Your task to perform on an android device: Open calendar and show me the third week of next month Image 0: 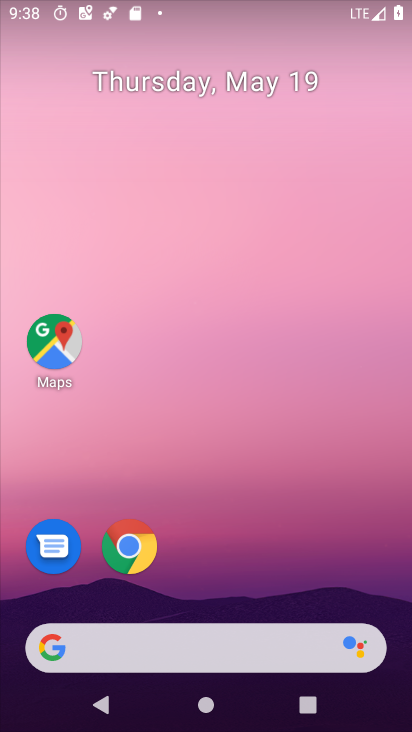
Step 0: drag from (232, 615) to (218, 34)
Your task to perform on an android device: Open calendar and show me the third week of next month Image 1: 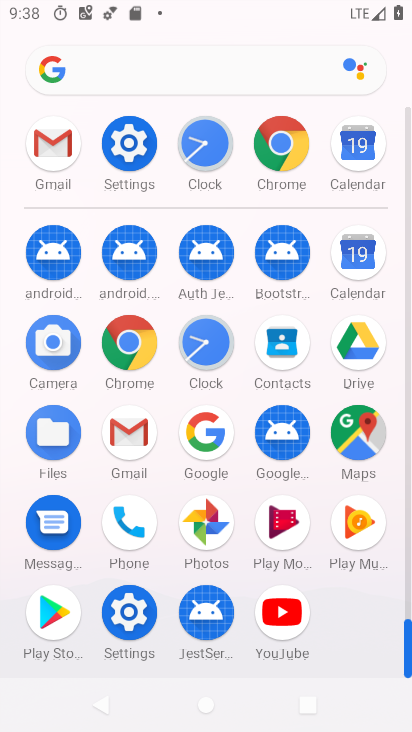
Step 1: drag from (203, 560) to (197, 12)
Your task to perform on an android device: Open calendar and show me the third week of next month Image 2: 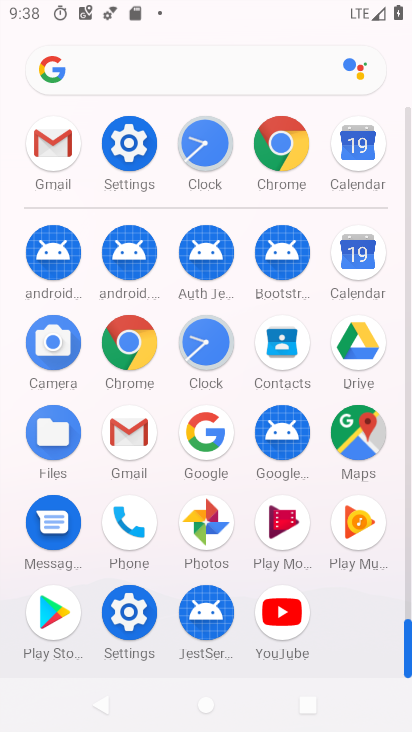
Step 2: click (336, 247)
Your task to perform on an android device: Open calendar and show me the third week of next month Image 3: 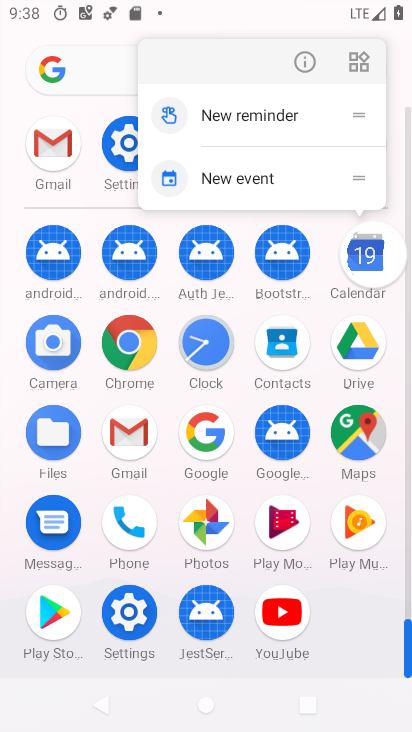
Step 3: click (351, 249)
Your task to perform on an android device: Open calendar and show me the third week of next month Image 4: 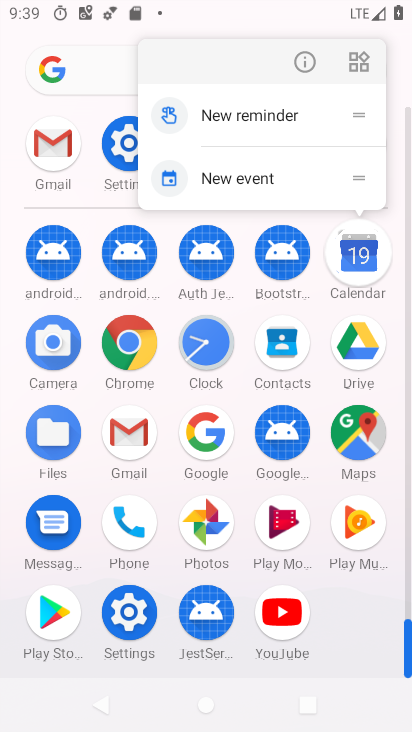
Step 4: click (353, 250)
Your task to perform on an android device: Open calendar and show me the third week of next month Image 5: 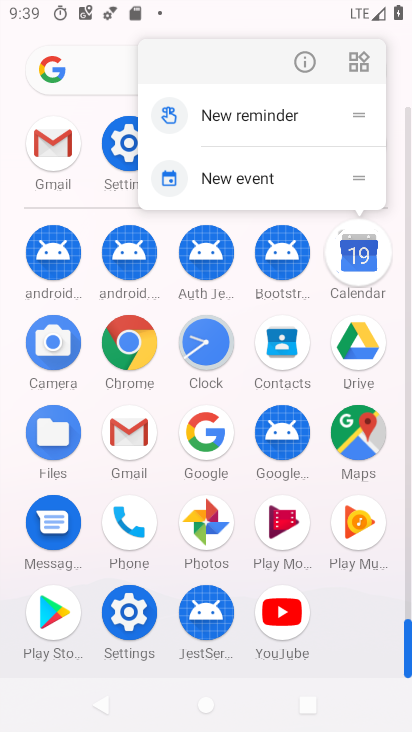
Step 5: click (354, 251)
Your task to perform on an android device: Open calendar and show me the third week of next month Image 6: 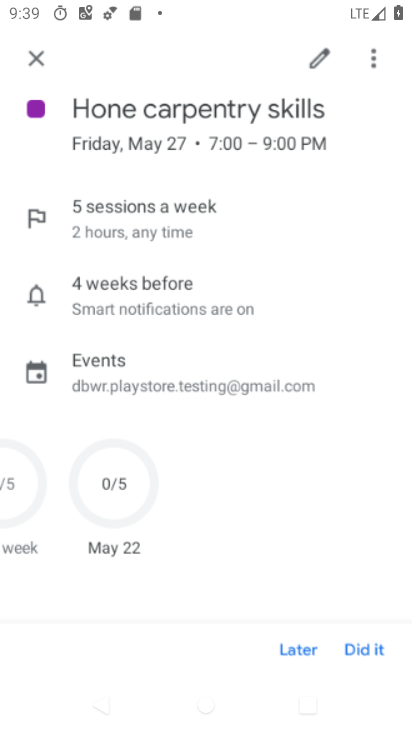
Step 6: click (364, 253)
Your task to perform on an android device: Open calendar and show me the third week of next month Image 7: 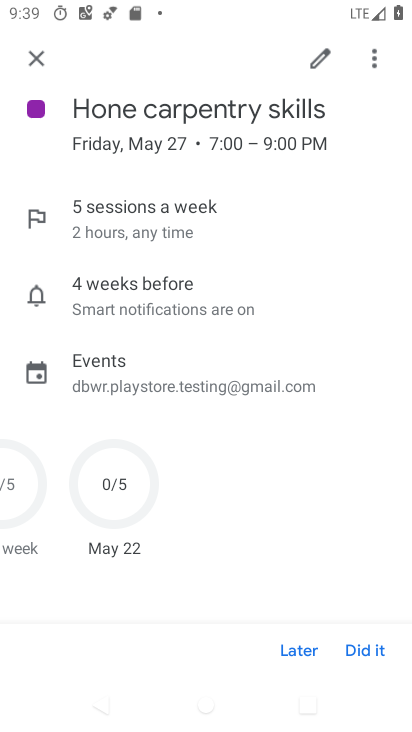
Step 7: click (33, 56)
Your task to perform on an android device: Open calendar and show me the third week of next month Image 8: 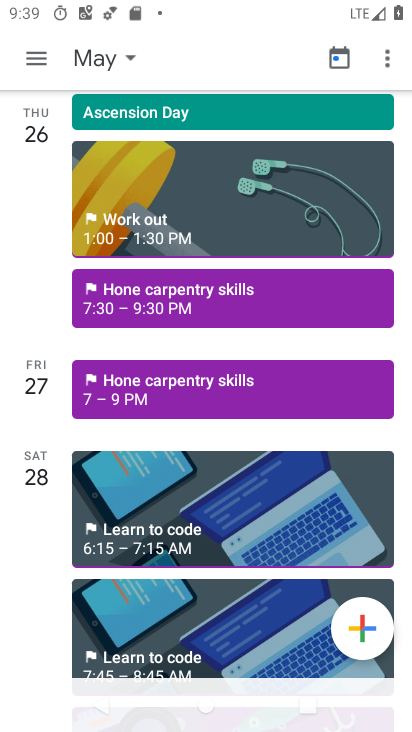
Step 8: click (48, 62)
Your task to perform on an android device: Open calendar and show me the third week of next month Image 9: 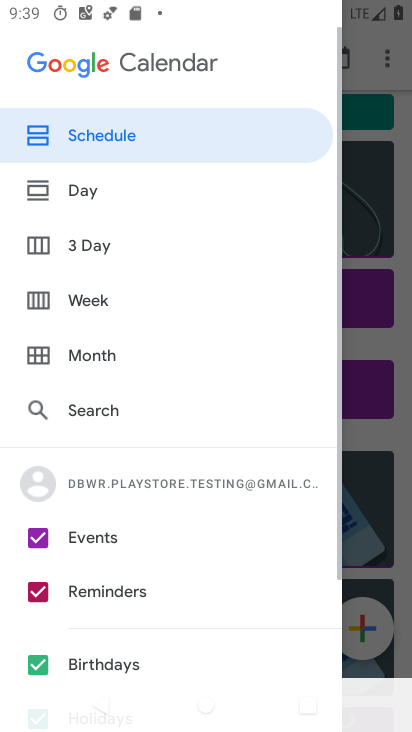
Step 9: click (349, 191)
Your task to perform on an android device: Open calendar and show me the third week of next month Image 10: 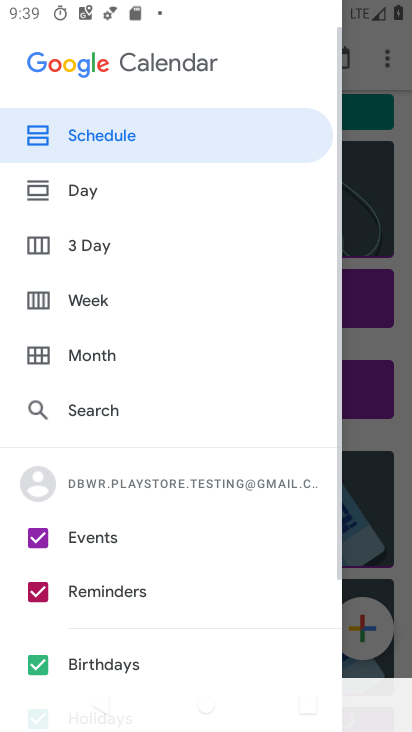
Step 10: click (359, 194)
Your task to perform on an android device: Open calendar and show me the third week of next month Image 11: 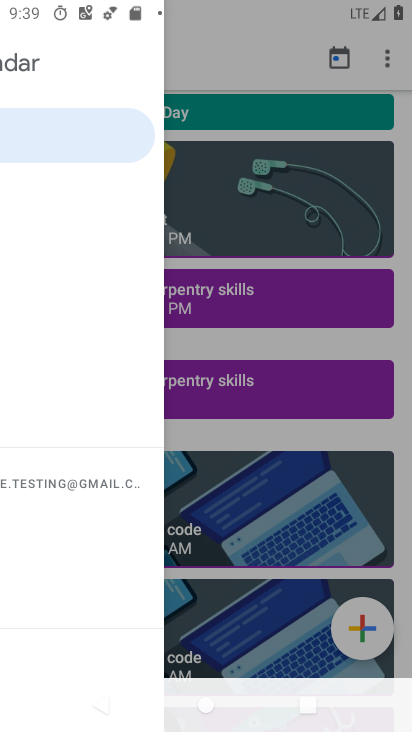
Step 11: click (360, 193)
Your task to perform on an android device: Open calendar and show me the third week of next month Image 12: 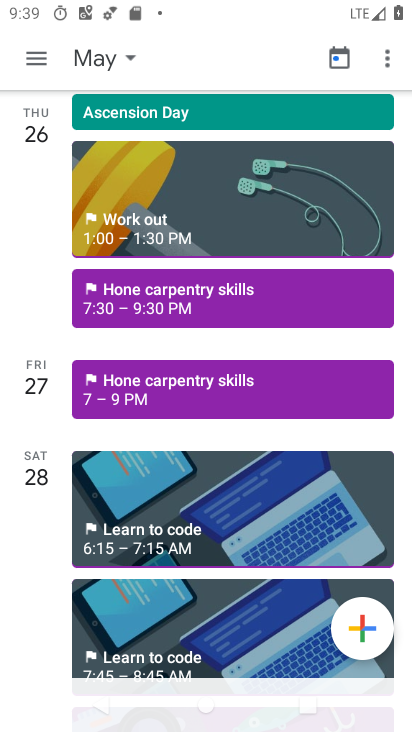
Step 12: click (127, 63)
Your task to perform on an android device: Open calendar and show me the third week of next month Image 13: 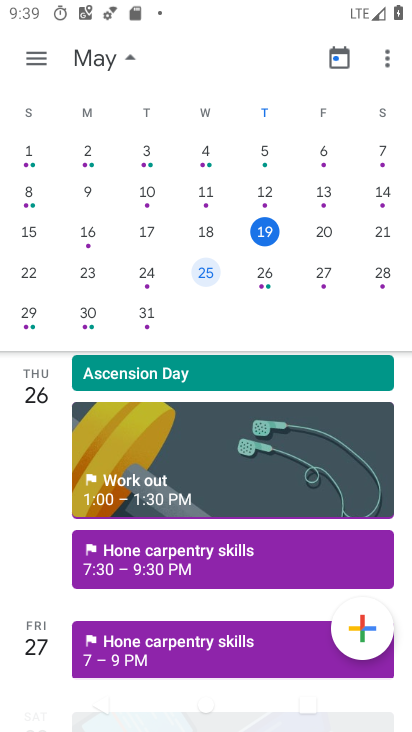
Step 13: drag from (334, 227) to (25, 225)
Your task to perform on an android device: Open calendar and show me the third week of next month Image 14: 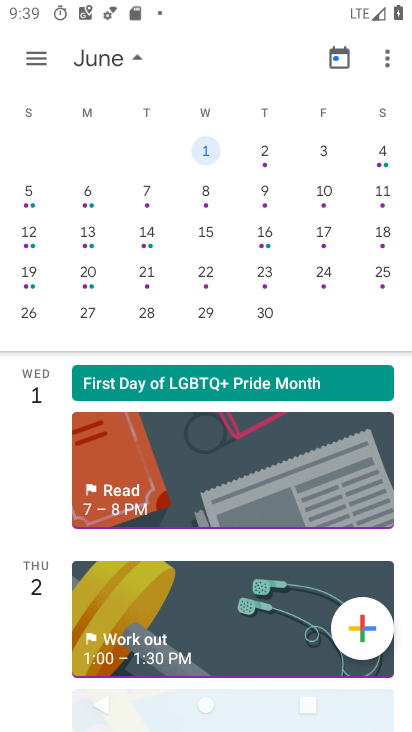
Step 14: drag from (188, 209) to (4, 194)
Your task to perform on an android device: Open calendar and show me the third week of next month Image 15: 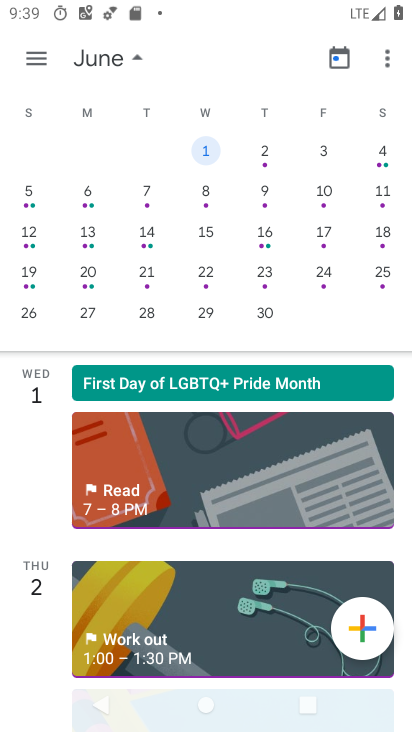
Step 15: click (204, 228)
Your task to perform on an android device: Open calendar and show me the third week of next month Image 16: 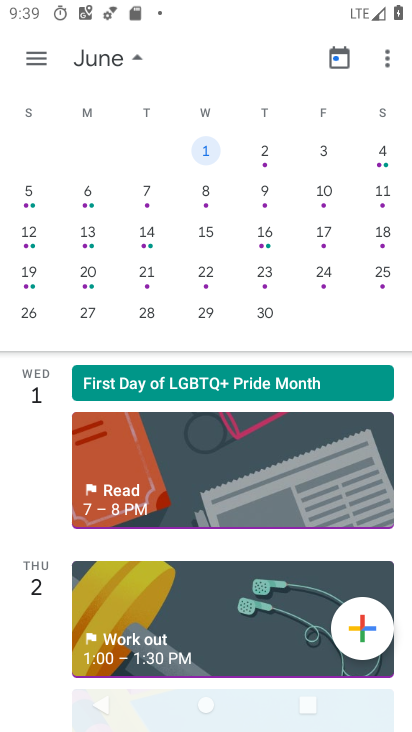
Step 16: click (204, 228)
Your task to perform on an android device: Open calendar and show me the third week of next month Image 17: 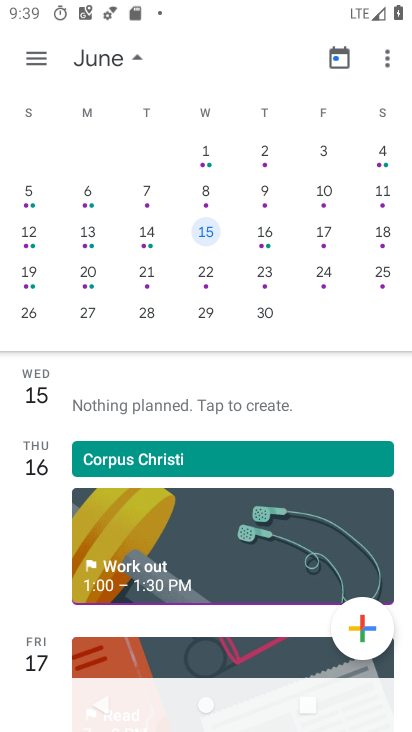
Step 17: click (200, 227)
Your task to perform on an android device: Open calendar and show me the third week of next month Image 18: 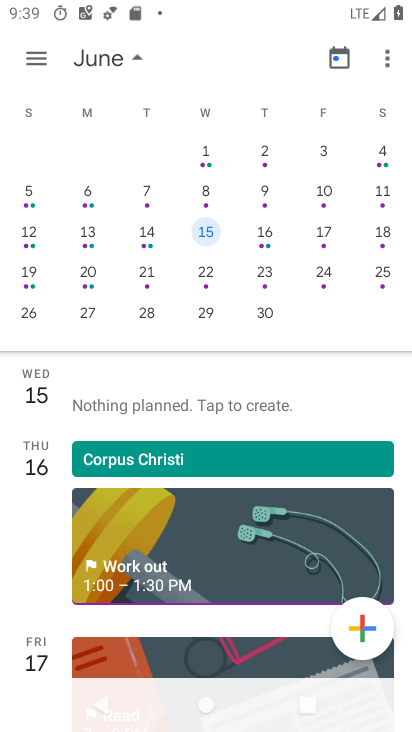
Step 18: task complete